Your task to perform on an android device: open app "Adobe Acrobat Reader" (install if not already installed) Image 0: 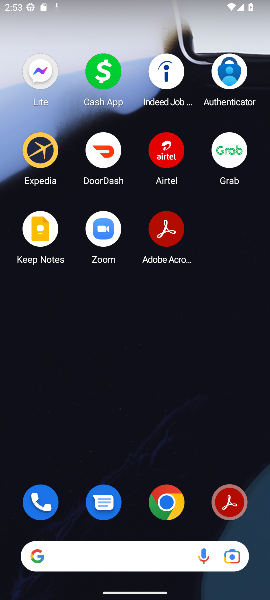
Step 0: click (225, 500)
Your task to perform on an android device: open app "Adobe Acrobat Reader" (install if not already installed) Image 1: 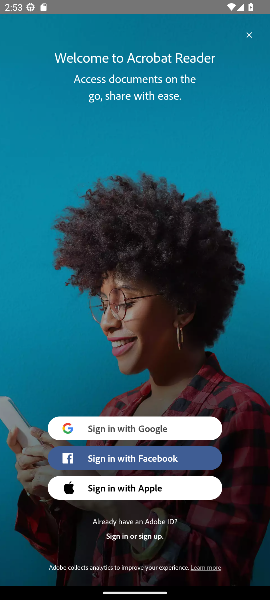
Step 1: task complete